Your task to perform on an android device: What is the news today? Image 0: 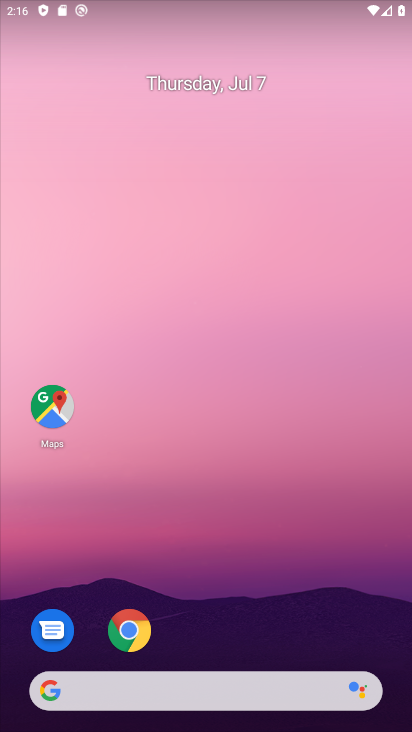
Step 0: drag from (242, 611) to (276, 185)
Your task to perform on an android device: What is the news today? Image 1: 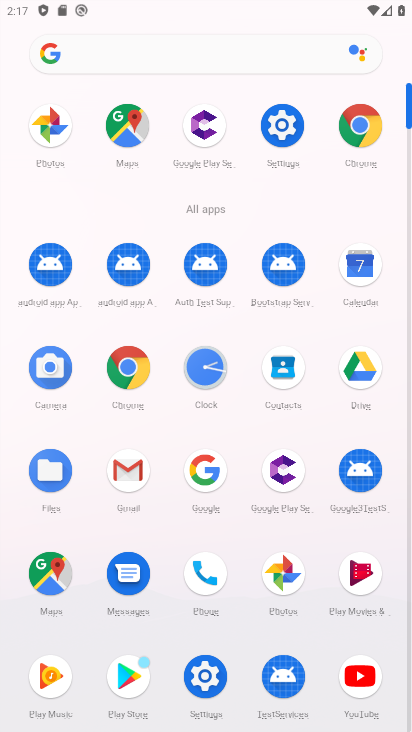
Step 1: click (128, 375)
Your task to perform on an android device: What is the news today? Image 2: 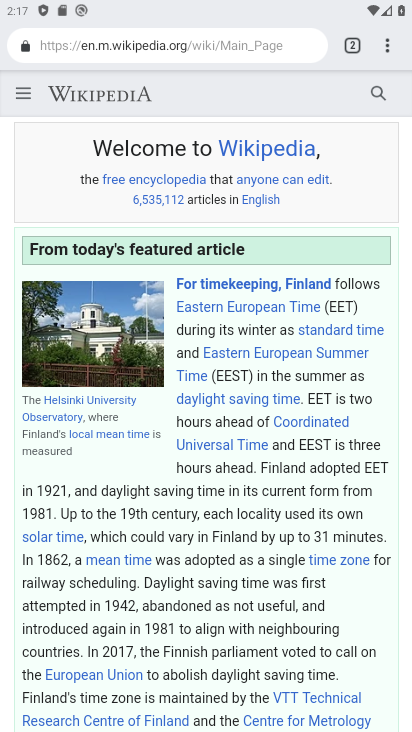
Step 2: click (384, 42)
Your task to perform on an android device: What is the news today? Image 3: 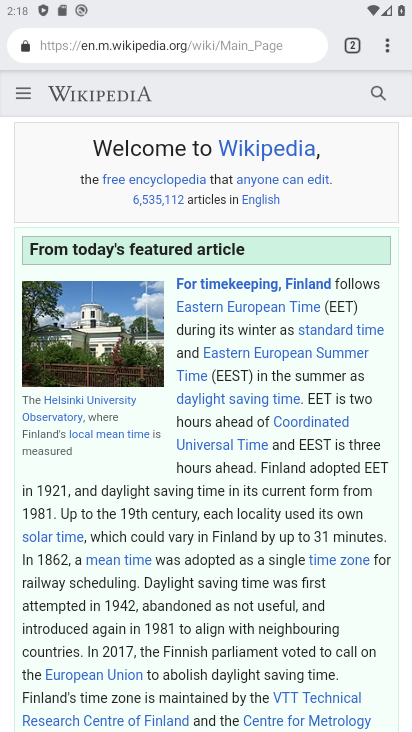
Step 3: click (381, 44)
Your task to perform on an android device: What is the news today? Image 4: 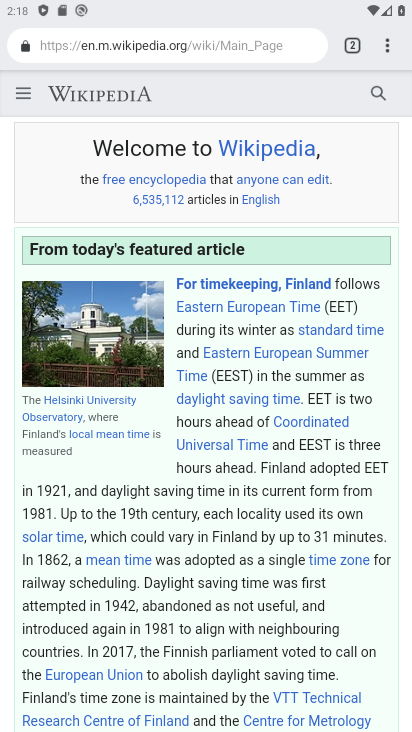
Step 4: click (398, 49)
Your task to perform on an android device: What is the news today? Image 5: 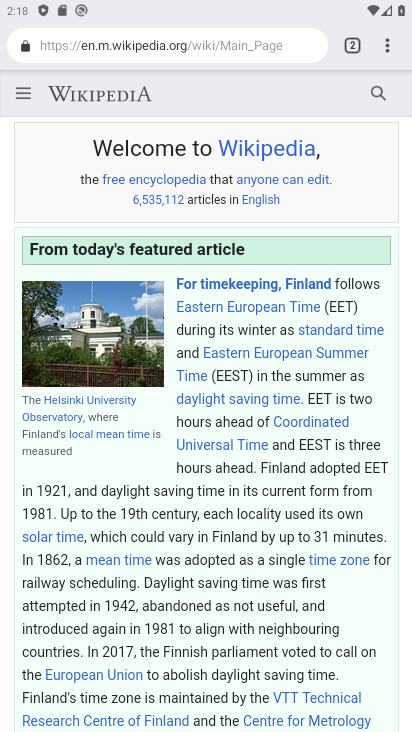
Step 5: click (398, 49)
Your task to perform on an android device: What is the news today? Image 6: 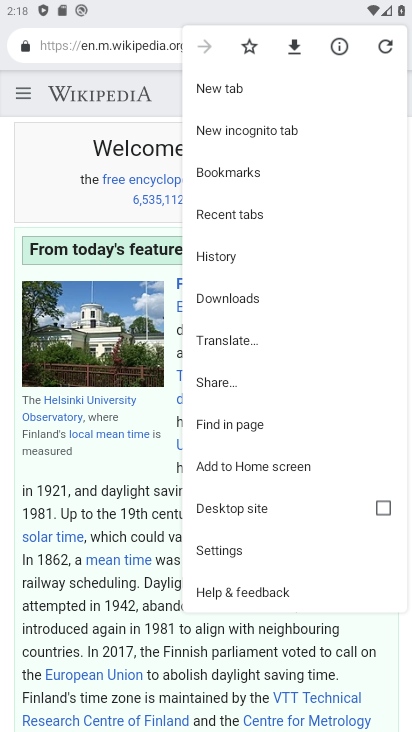
Step 6: click (238, 84)
Your task to perform on an android device: What is the news today? Image 7: 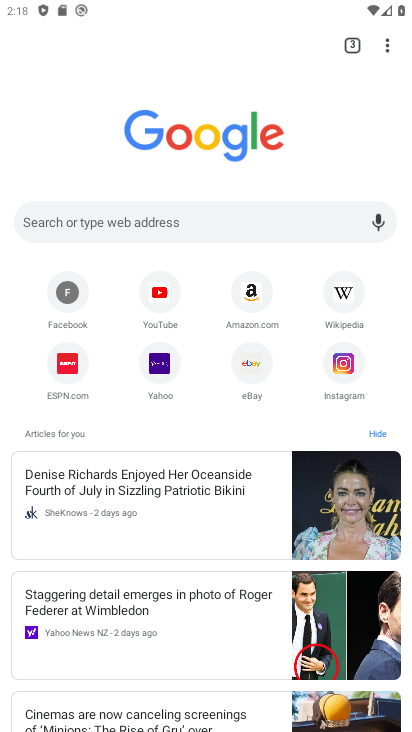
Step 7: click (261, 214)
Your task to perform on an android device: What is the news today? Image 8: 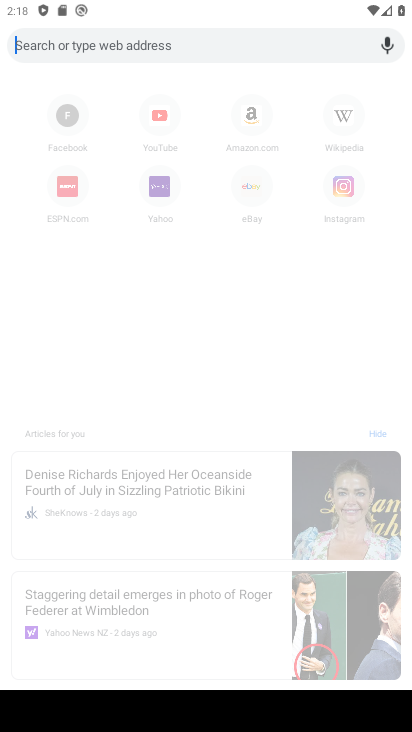
Step 8: type "What is the news today? "
Your task to perform on an android device: What is the news today? Image 9: 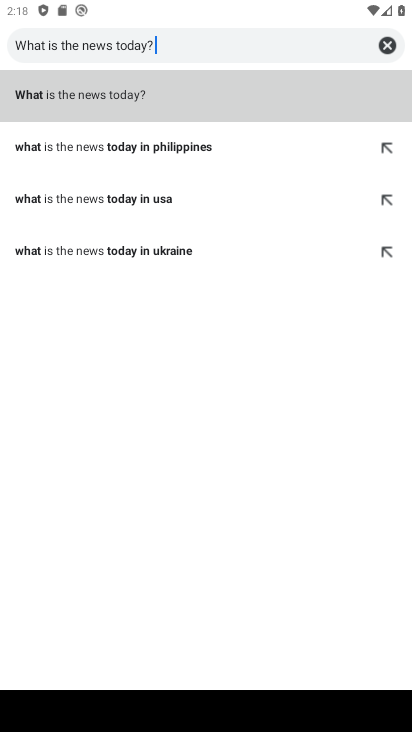
Step 9: click (111, 89)
Your task to perform on an android device: What is the news today? Image 10: 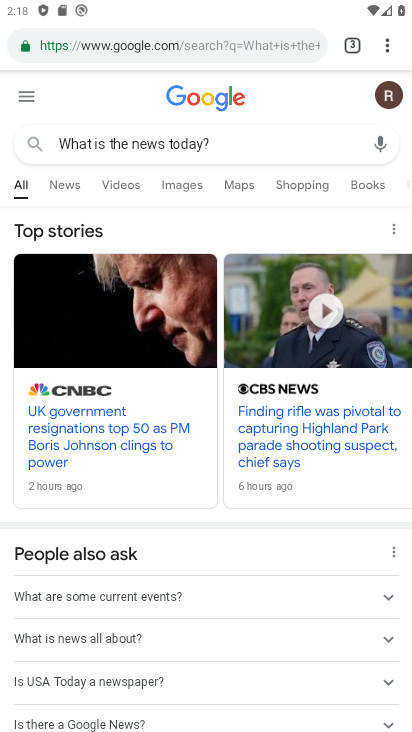
Step 10: task complete